Your task to perform on an android device: What is the recent news? Image 0: 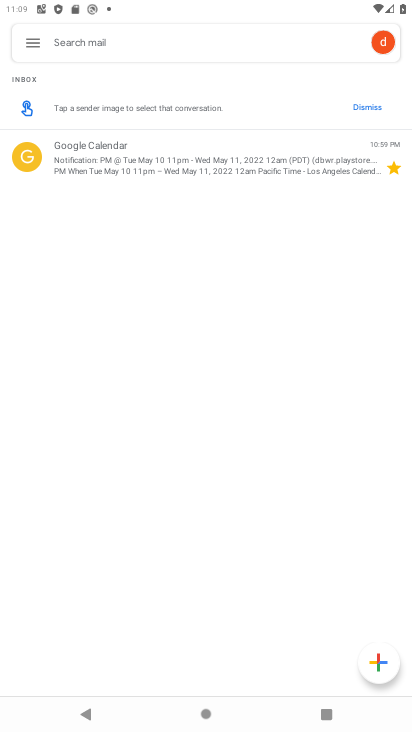
Step 0: press home button
Your task to perform on an android device: What is the recent news? Image 1: 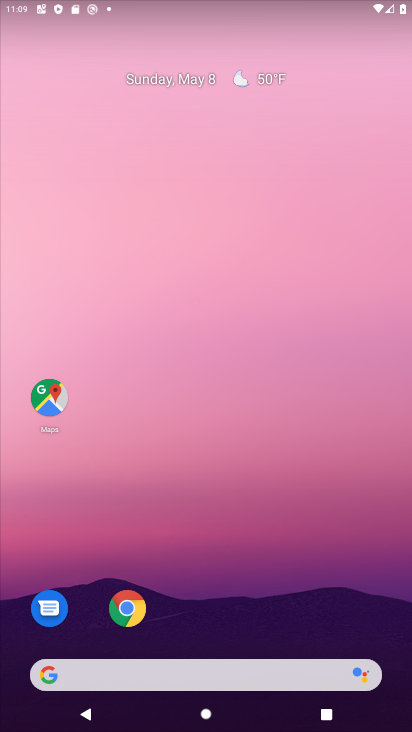
Step 1: drag from (320, 590) to (272, 92)
Your task to perform on an android device: What is the recent news? Image 2: 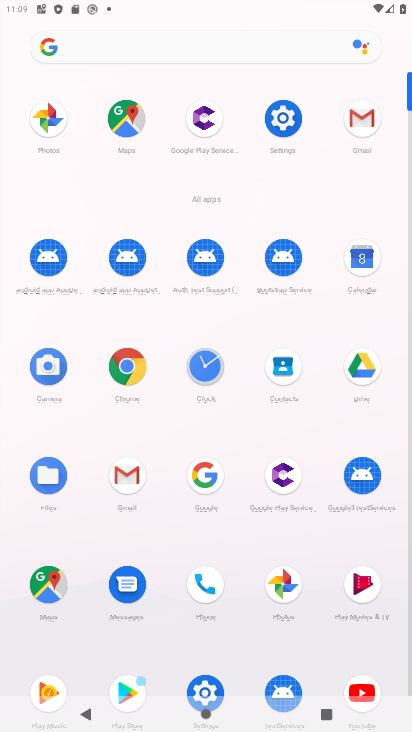
Step 2: click (132, 374)
Your task to perform on an android device: What is the recent news? Image 3: 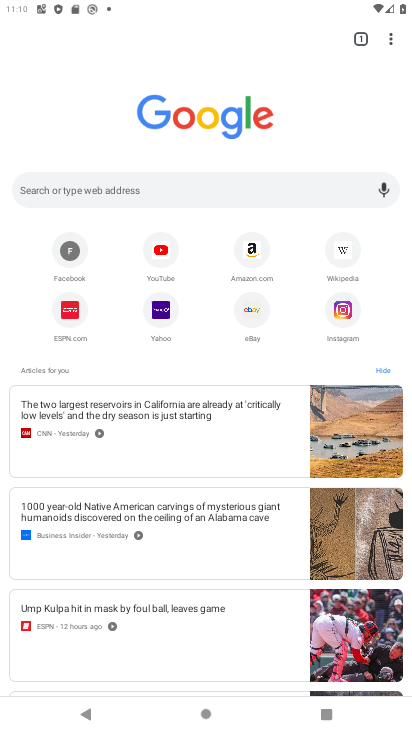
Step 3: task complete